Your task to perform on an android device: Open Google Image 0: 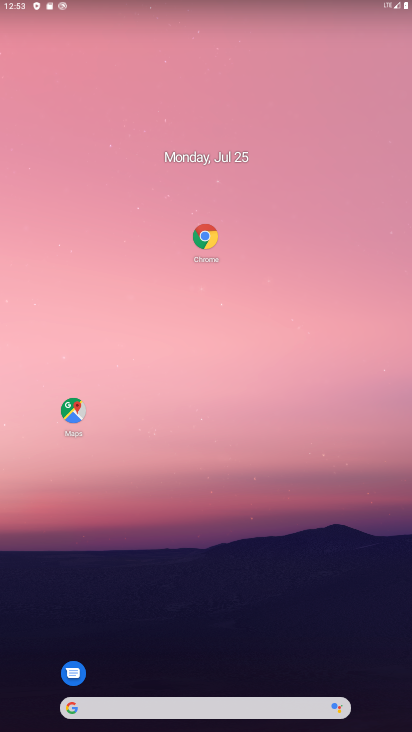
Step 0: drag from (278, 709) to (273, 161)
Your task to perform on an android device: Open Google Image 1: 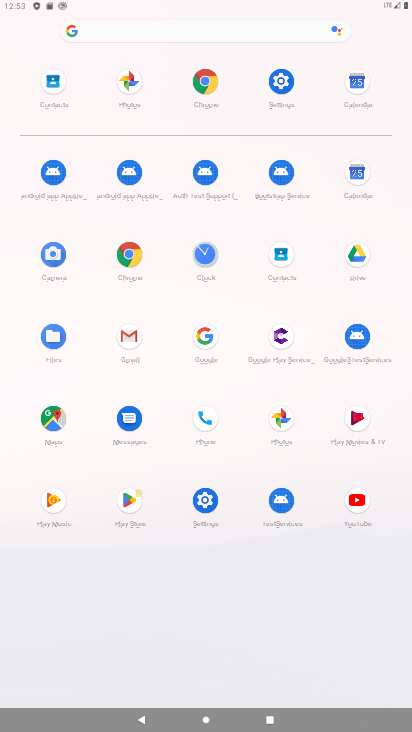
Step 1: click (127, 260)
Your task to perform on an android device: Open Google Image 2: 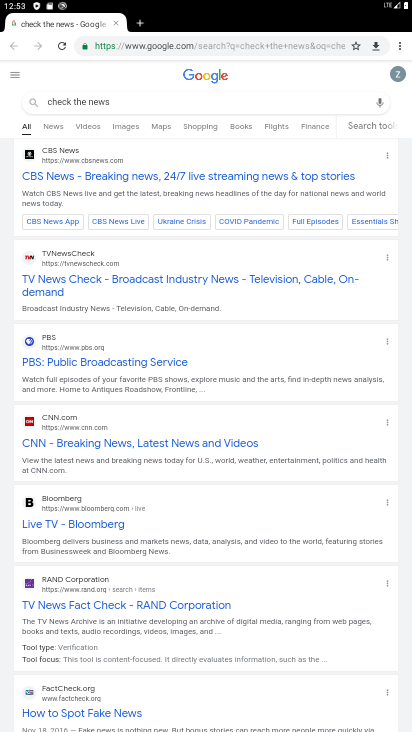
Step 2: task complete